Your task to perform on an android device: turn off picture-in-picture Image 0: 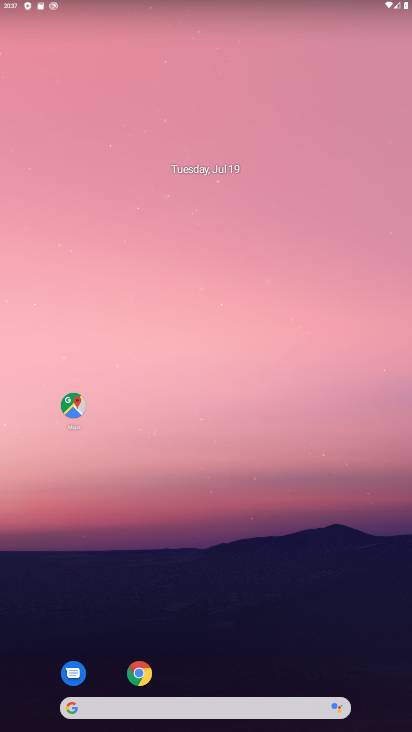
Step 0: click (148, 671)
Your task to perform on an android device: turn off picture-in-picture Image 1: 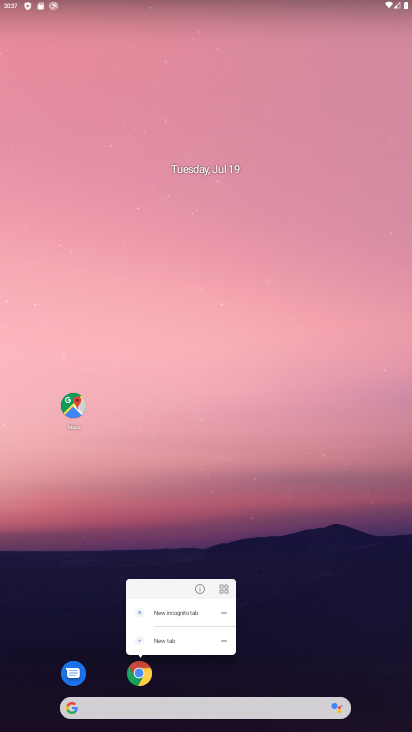
Step 1: click (201, 590)
Your task to perform on an android device: turn off picture-in-picture Image 2: 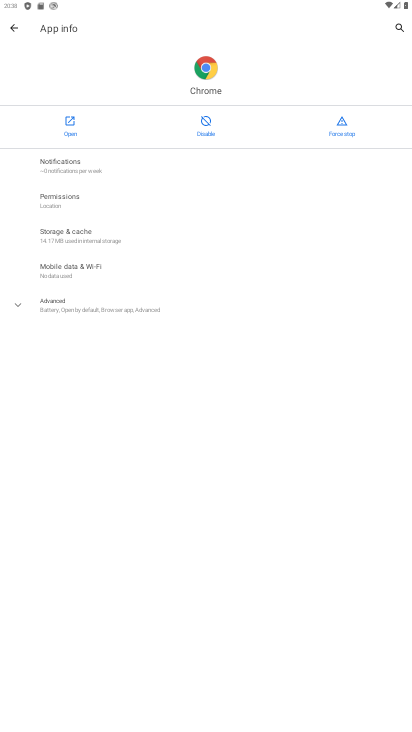
Step 2: click (14, 32)
Your task to perform on an android device: turn off picture-in-picture Image 3: 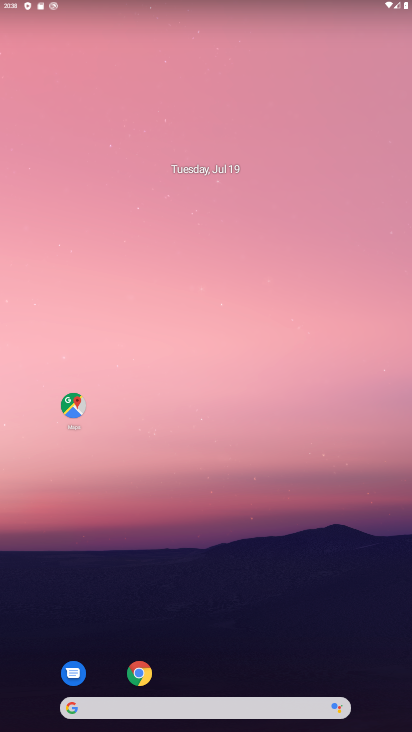
Step 3: click (216, 675)
Your task to perform on an android device: turn off picture-in-picture Image 4: 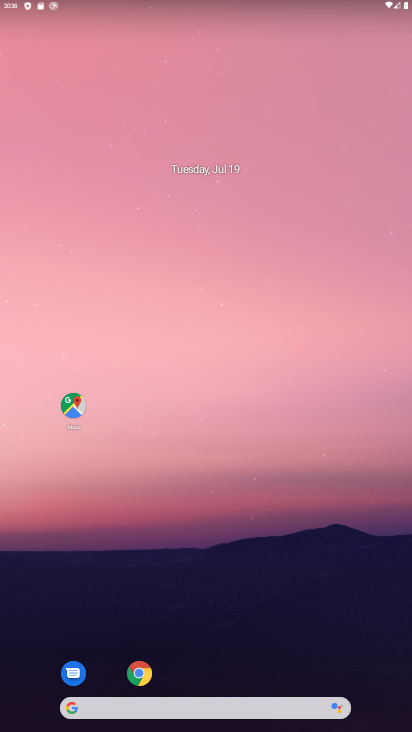
Step 4: click (140, 683)
Your task to perform on an android device: turn off picture-in-picture Image 5: 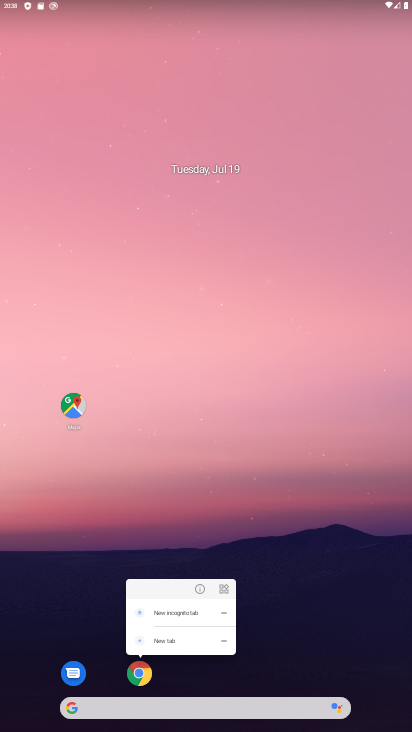
Step 5: click (201, 588)
Your task to perform on an android device: turn off picture-in-picture Image 6: 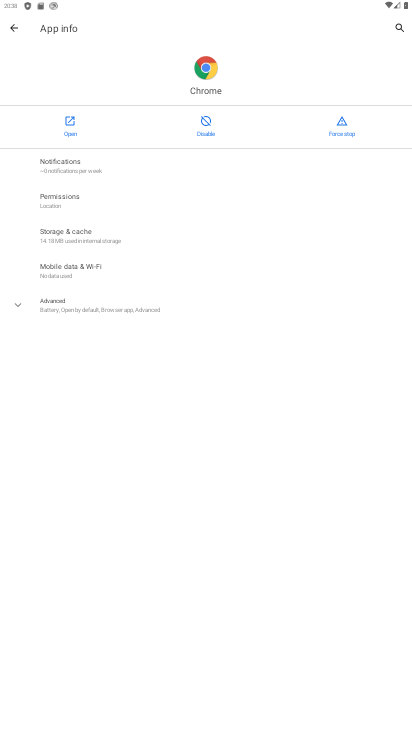
Step 6: click (87, 302)
Your task to perform on an android device: turn off picture-in-picture Image 7: 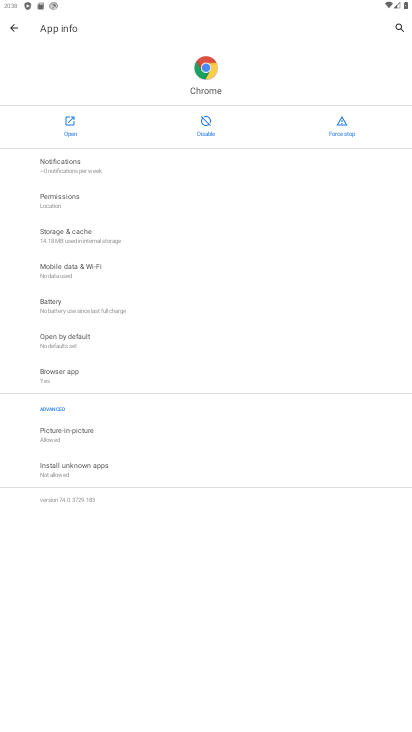
Step 7: click (72, 431)
Your task to perform on an android device: turn off picture-in-picture Image 8: 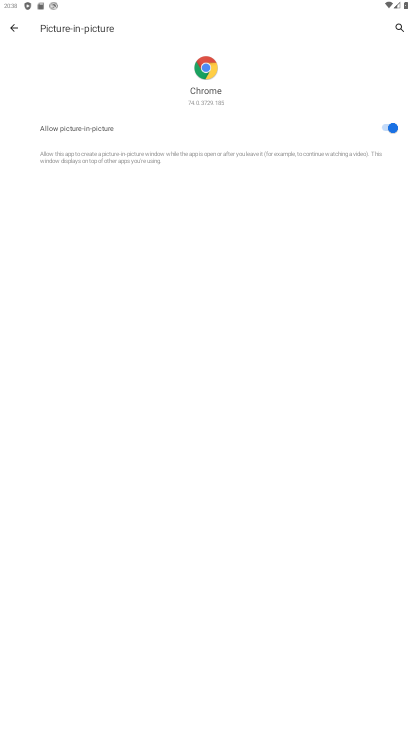
Step 8: click (359, 124)
Your task to perform on an android device: turn off picture-in-picture Image 9: 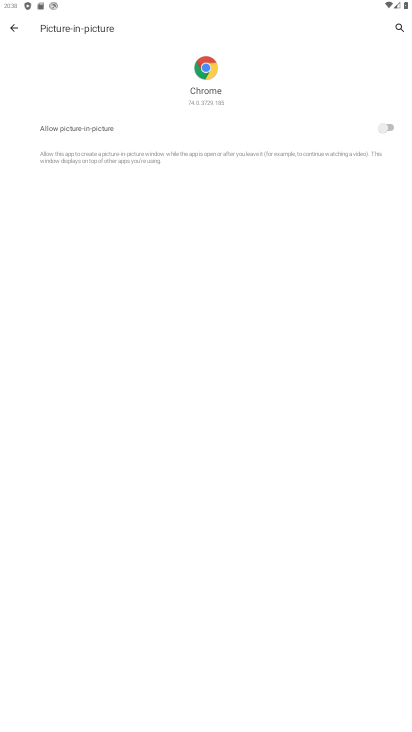
Step 9: task complete